Your task to perform on an android device: Open sound settings Image 0: 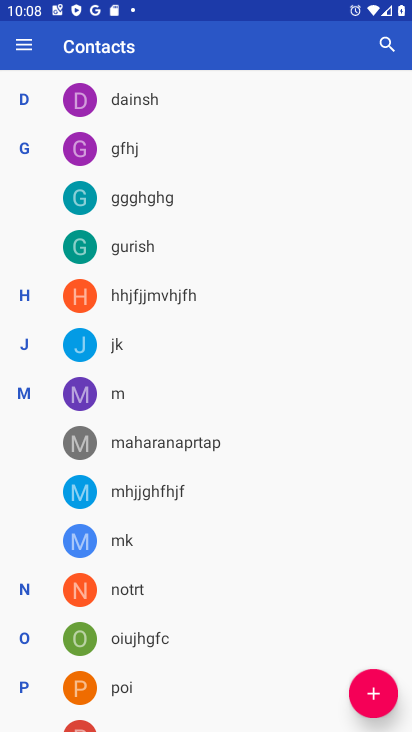
Step 0: press home button
Your task to perform on an android device: Open sound settings Image 1: 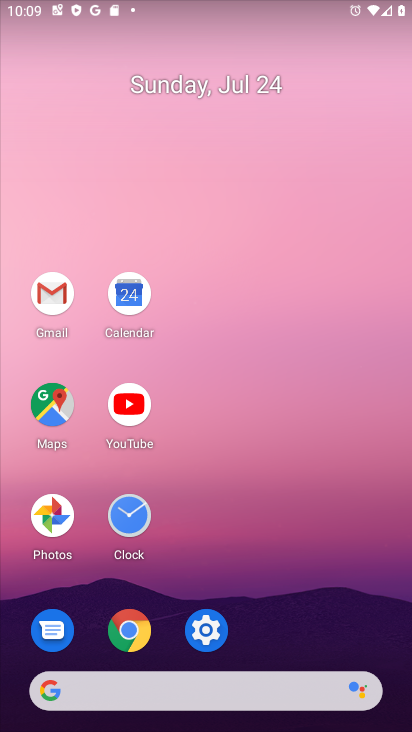
Step 1: click (205, 629)
Your task to perform on an android device: Open sound settings Image 2: 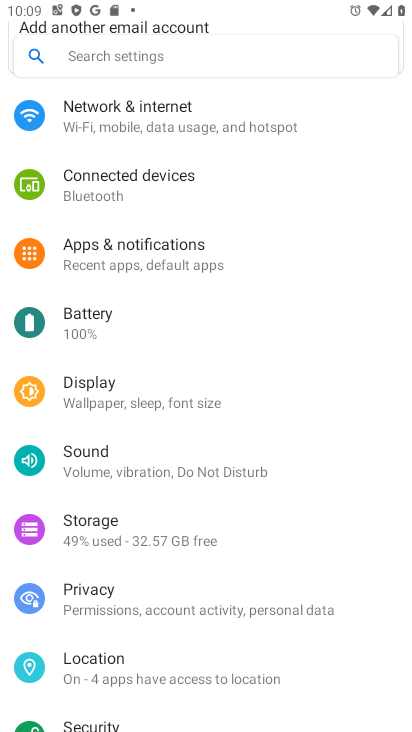
Step 2: click (73, 452)
Your task to perform on an android device: Open sound settings Image 3: 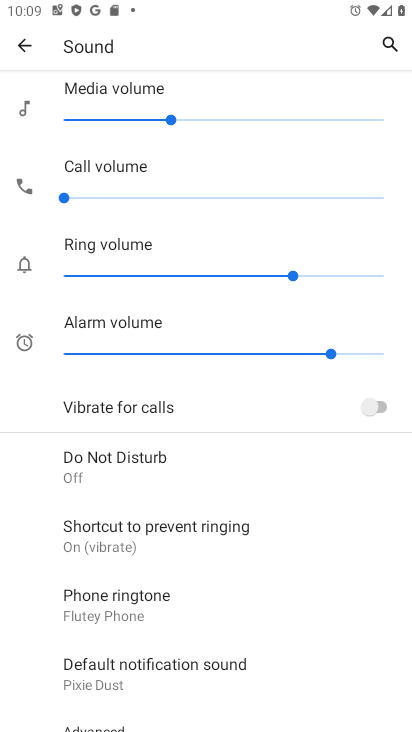
Step 3: task complete